Your task to perform on an android device: Go to Reddit.com Image 0: 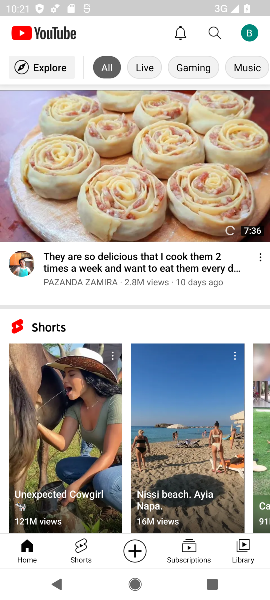
Step 0: press home button
Your task to perform on an android device: Go to Reddit.com Image 1: 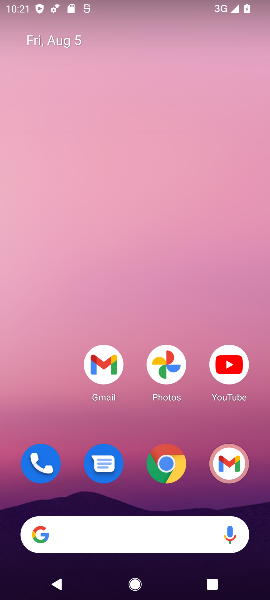
Step 1: drag from (107, 513) to (159, 53)
Your task to perform on an android device: Go to Reddit.com Image 2: 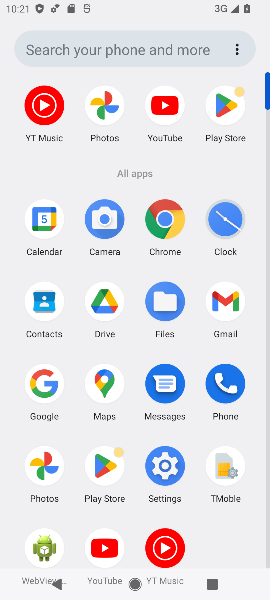
Step 2: click (156, 216)
Your task to perform on an android device: Go to Reddit.com Image 3: 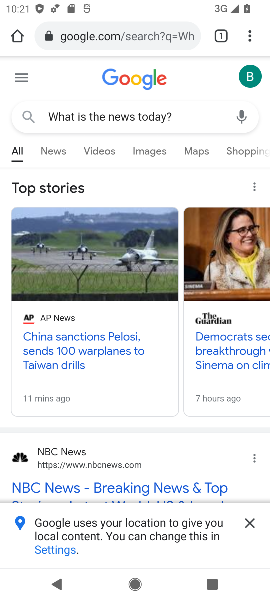
Step 3: click (197, 111)
Your task to perform on an android device: Go to Reddit.com Image 4: 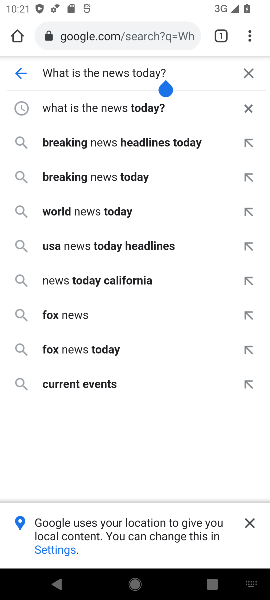
Step 4: click (247, 68)
Your task to perform on an android device: Go to Reddit.com Image 5: 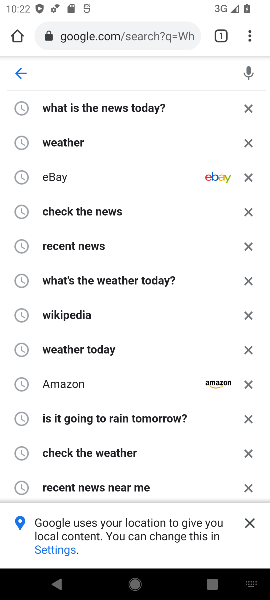
Step 5: click (138, 68)
Your task to perform on an android device: Go to Reddit.com Image 6: 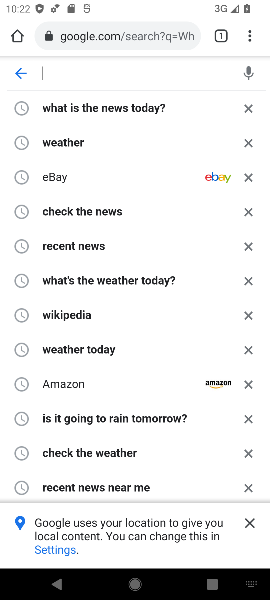
Step 6: type " Reddit.com "
Your task to perform on an android device: Go to Reddit.com Image 7: 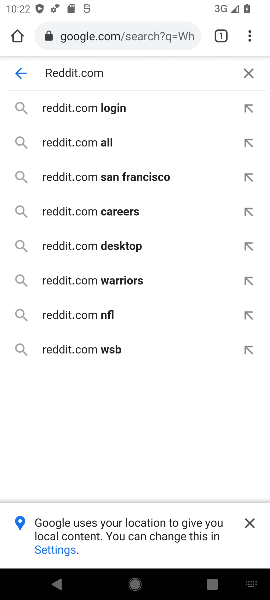
Step 7: click (75, 112)
Your task to perform on an android device: Go to Reddit.com Image 8: 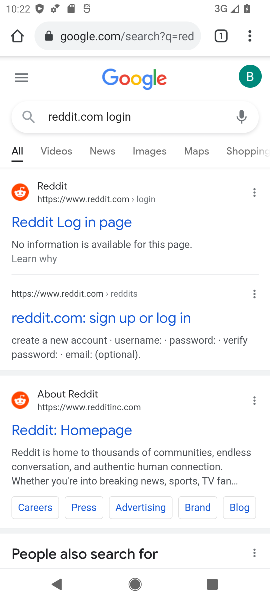
Step 8: task complete